Your task to perform on an android device: create a new album in the google photos Image 0: 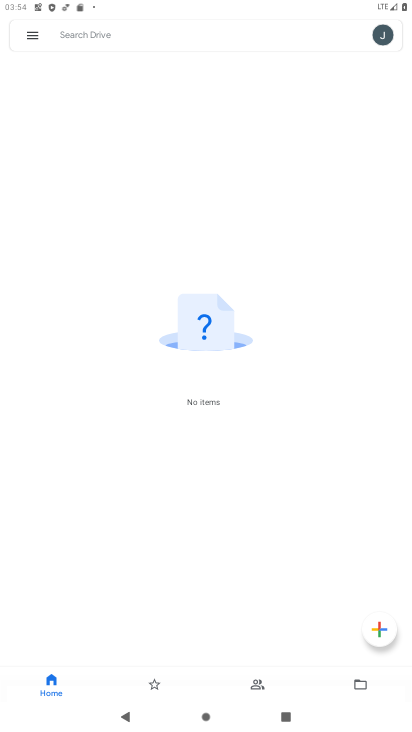
Step 0: press home button
Your task to perform on an android device: create a new album in the google photos Image 1: 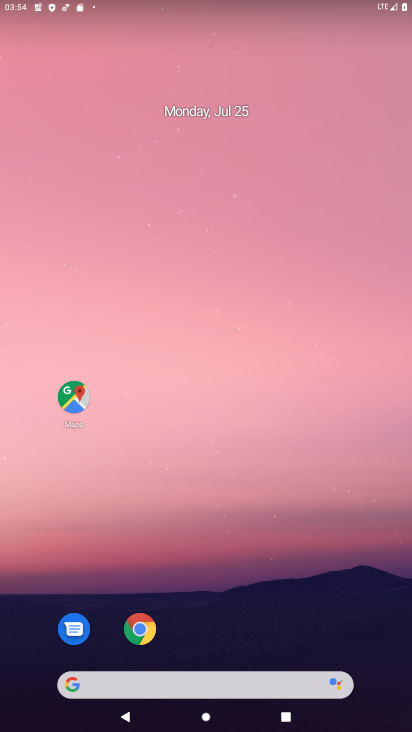
Step 1: drag from (285, 651) to (213, 2)
Your task to perform on an android device: create a new album in the google photos Image 2: 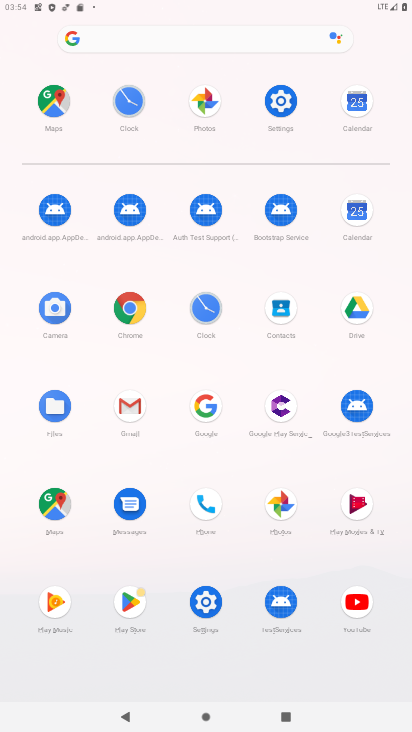
Step 2: click (203, 110)
Your task to perform on an android device: create a new album in the google photos Image 3: 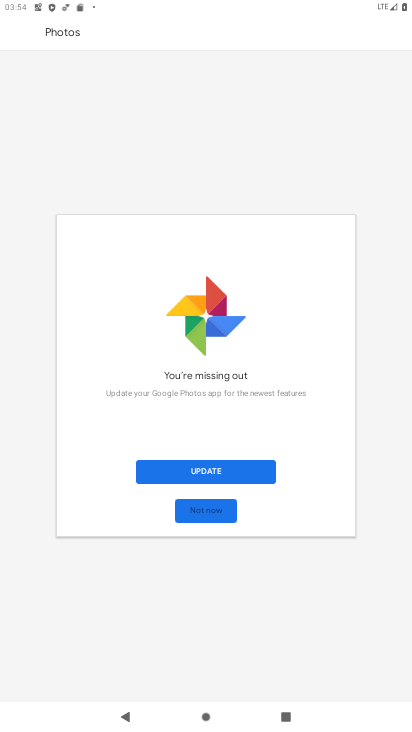
Step 3: click (205, 499)
Your task to perform on an android device: create a new album in the google photos Image 4: 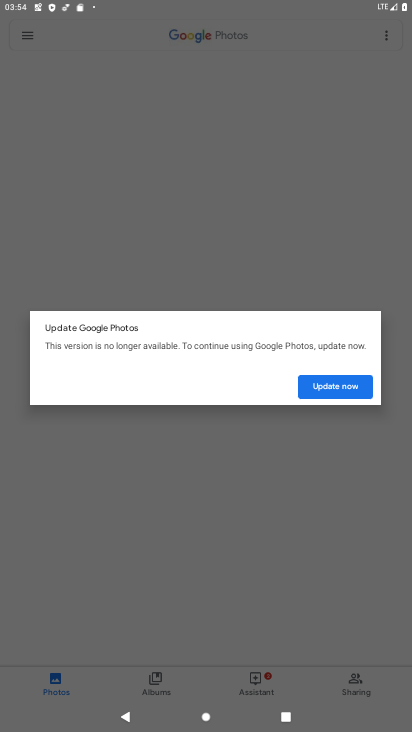
Step 4: click (304, 395)
Your task to perform on an android device: create a new album in the google photos Image 5: 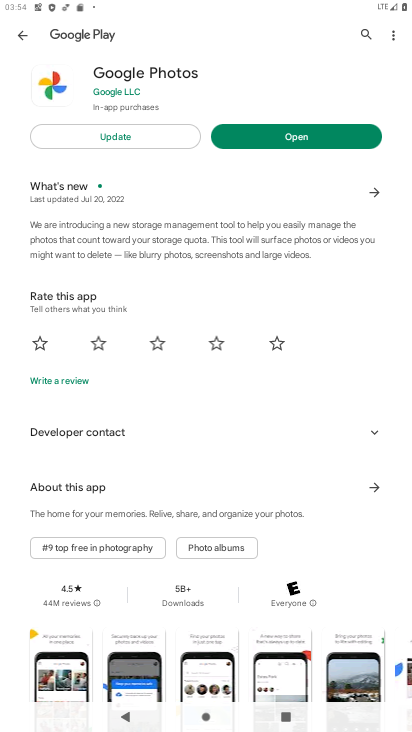
Step 5: click (287, 140)
Your task to perform on an android device: create a new album in the google photos Image 6: 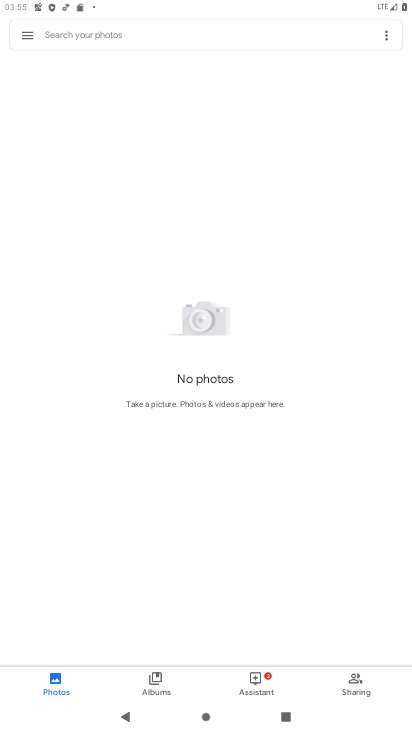
Step 6: task complete